Your task to perform on an android device: Open Android settings Image 0: 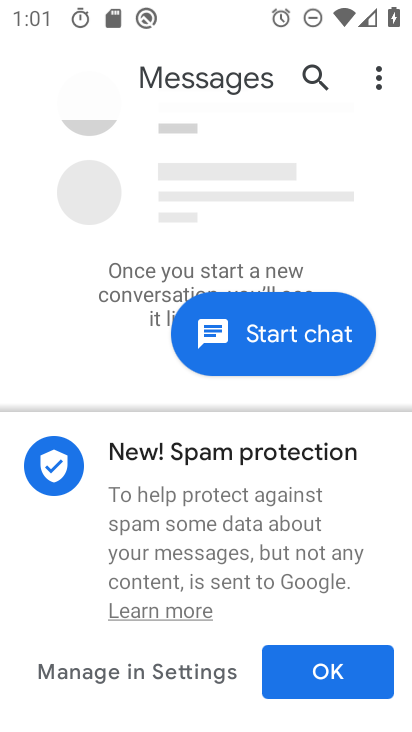
Step 0: press back button
Your task to perform on an android device: Open Android settings Image 1: 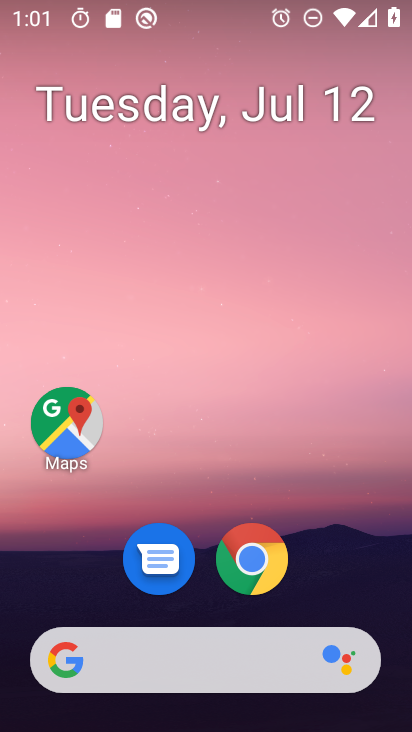
Step 1: drag from (172, 578) to (227, 15)
Your task to perform on an android device: Open Android settings Image 2: 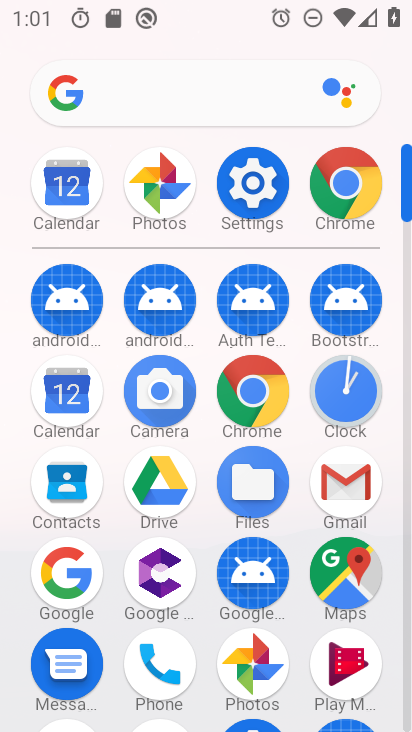
Step 2: click (262, 183)
Your task to perform on an android device: Open Android settings Image 3: 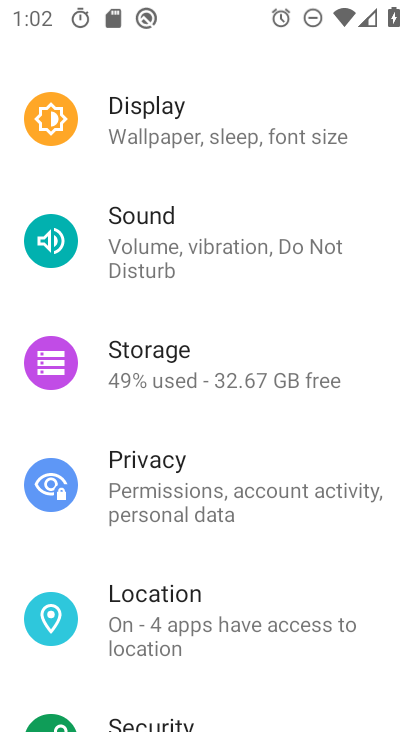
Step 3: drag from (171, 645) to (288, 7)
Your task to perform on an android device: Open Android settings Image 4: 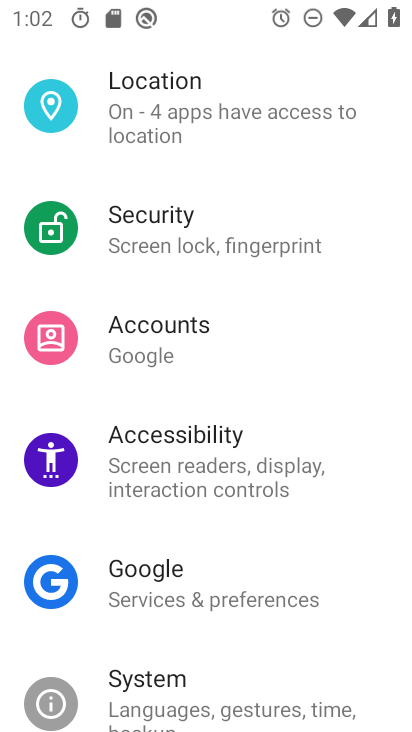
Step 4: drag from (256, 668) to (262, 76)
Your task to perform on an android device: Open Android settings Image 5: 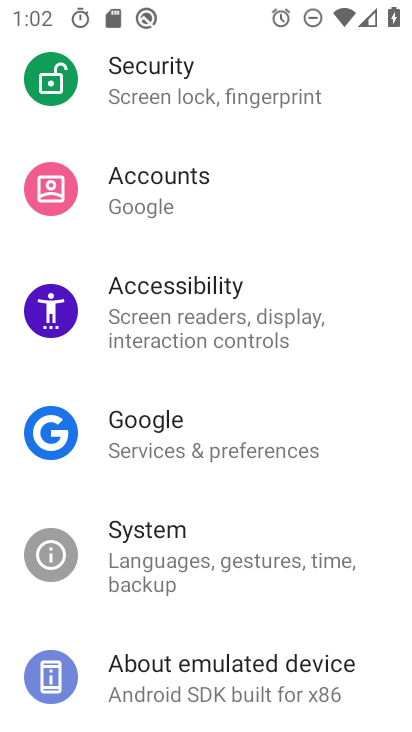
Step 5: click (163, 656)
Your task to perform on an android device: Open Android settings Image 6: 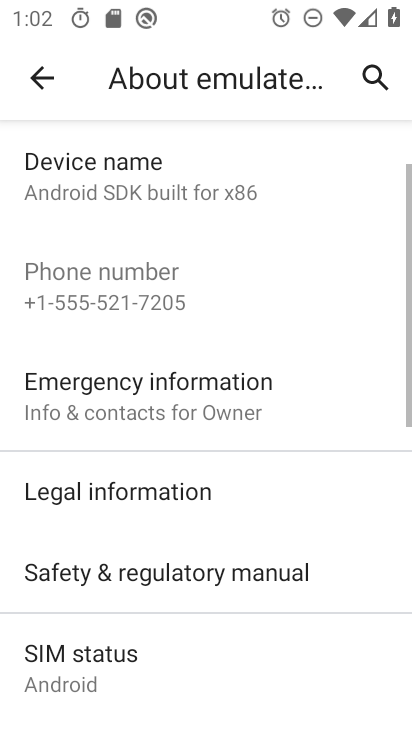
Step 6: drag from (142, 651) to (222, 177)
Your task to perform on an android device: Open Android settings Image 7: 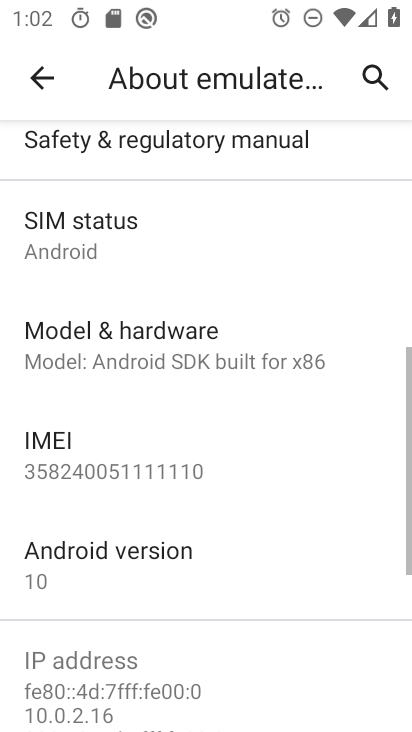
Step 7: click (97, 582)
Your task to perform on an android device: Open Android settings Image 8: 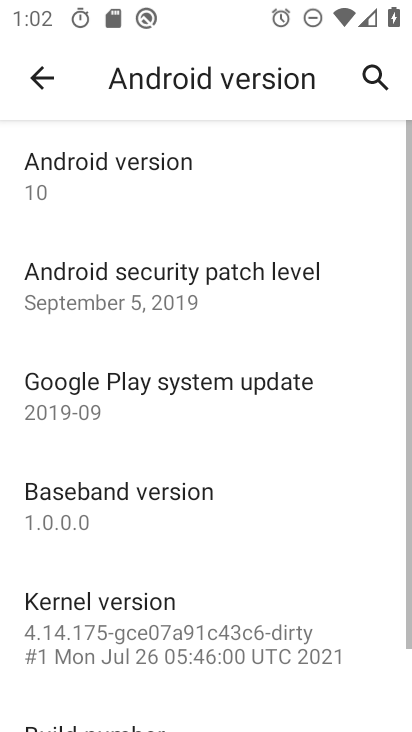
Step 8: task complete